Your task to perform on an android device: Open Wikipedia Image 0: 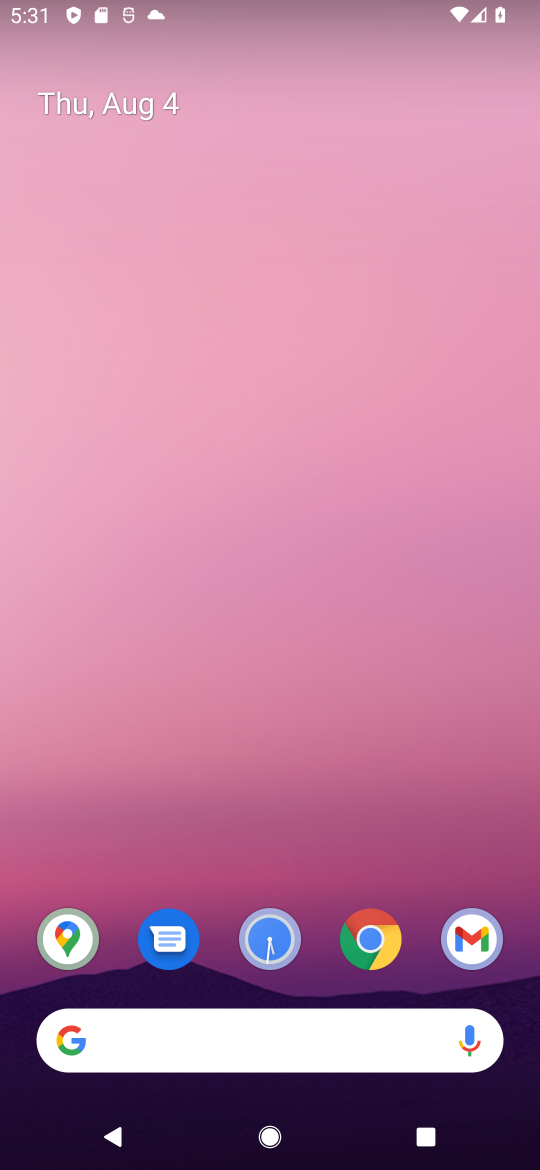
Step 0: drag from (289, 1010) to (292, 182)
Your task to perform on an android device: Open Wikipedia Image 1: 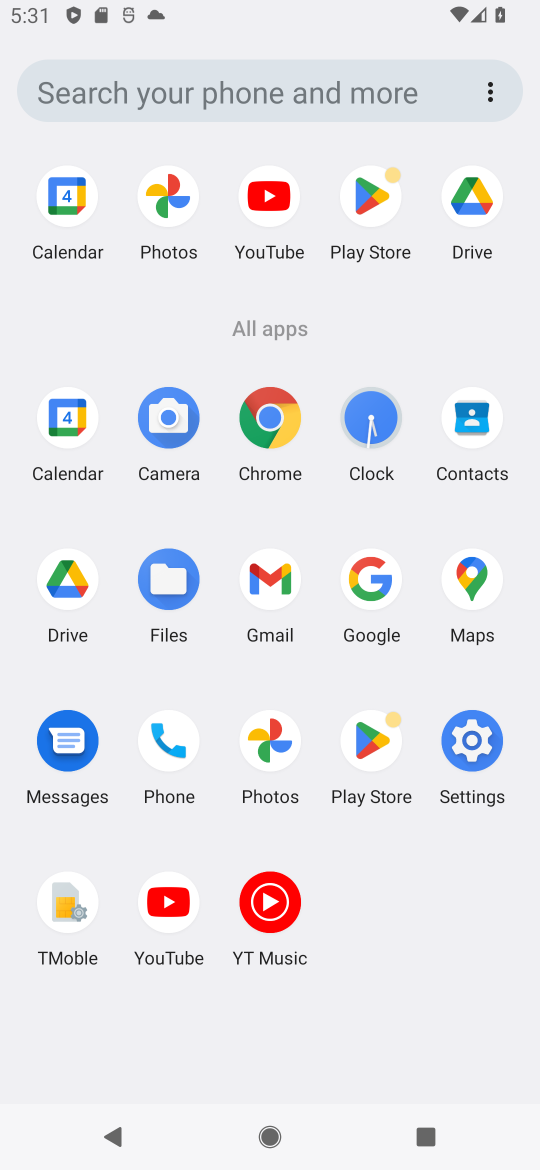
Step 1: click (275, 411)
Your task to perform on an android device: Open Wikipedia Image 2: 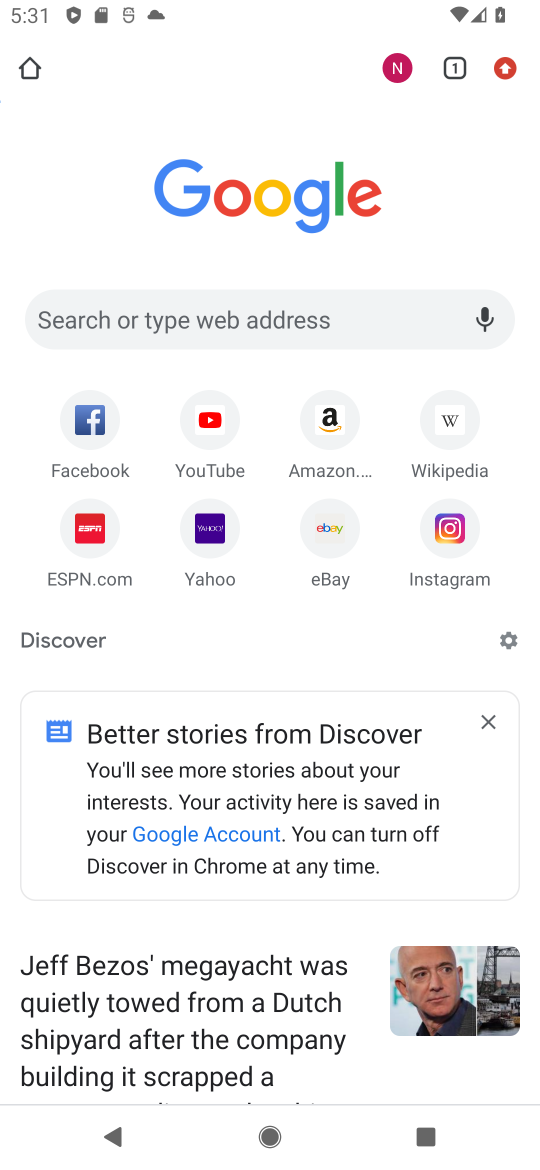
Step 2: click (450, 416)
Your task to perform on an android device: Open Wikipedia Image 3: 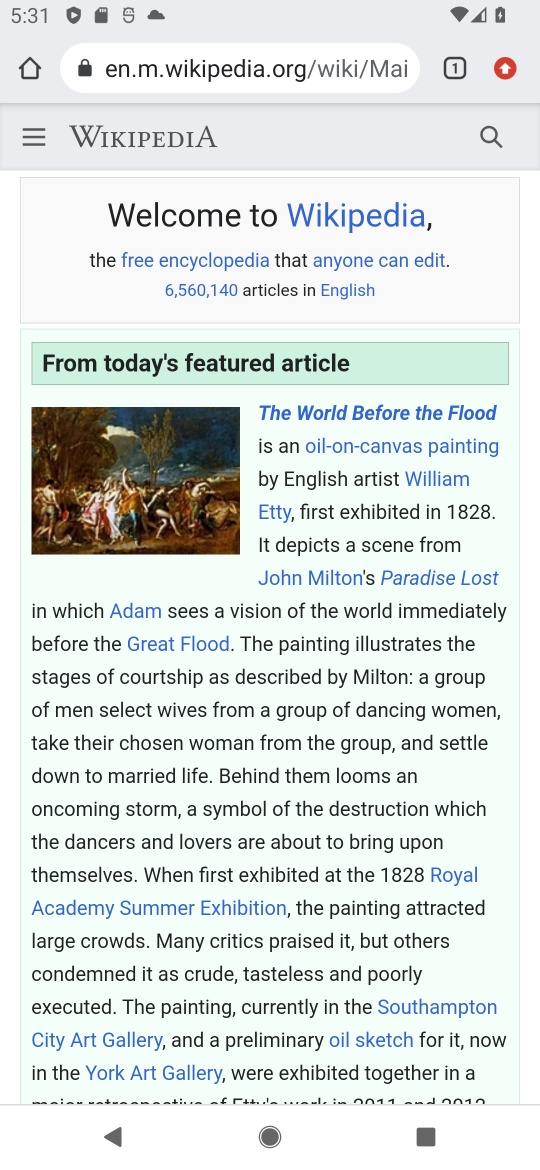
Step 3: task complete